Your task to perform on an android device: open the mobile data screen to see how much data has been used Image 0: 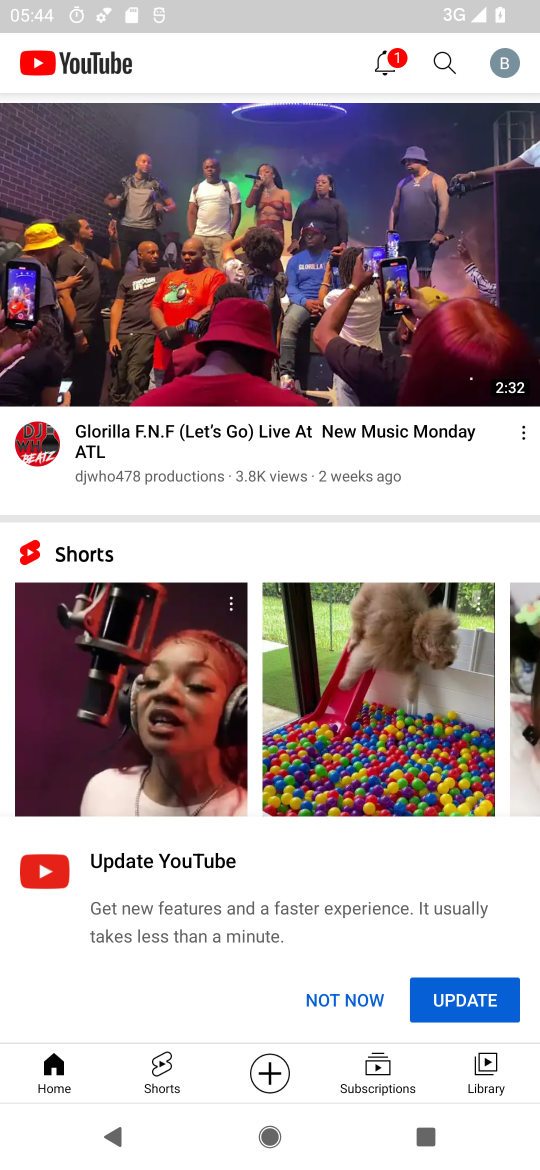
Step 0: press home button
Your task to perform on an android device: open the mobile data screen to see how much data has been used Image 1: 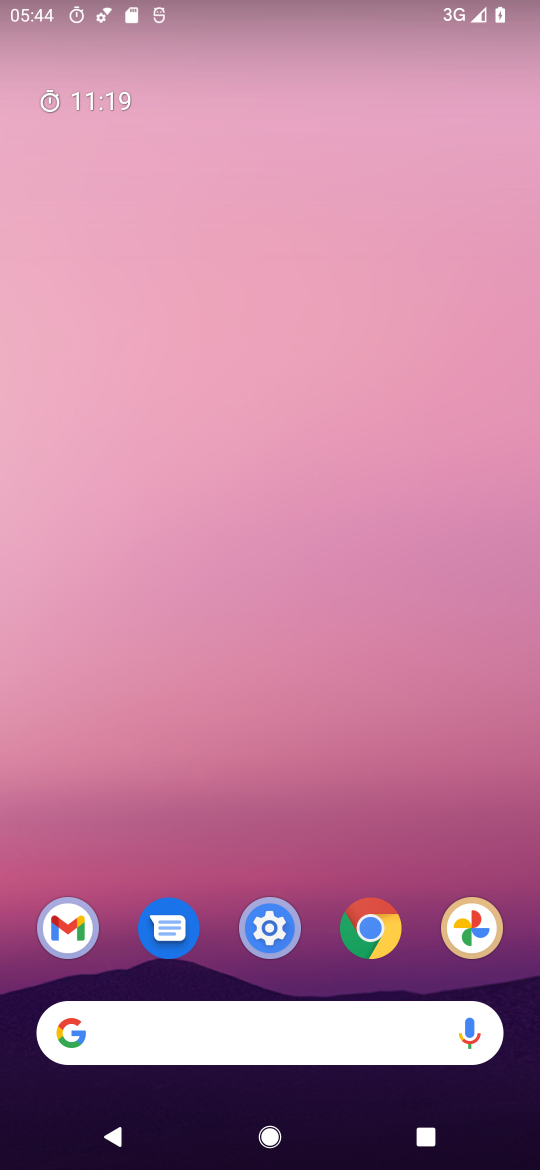
Step 1: click (279, 916)
Your task to perform on an android device: open the mobile data screen to see how much data has been used Image 2: 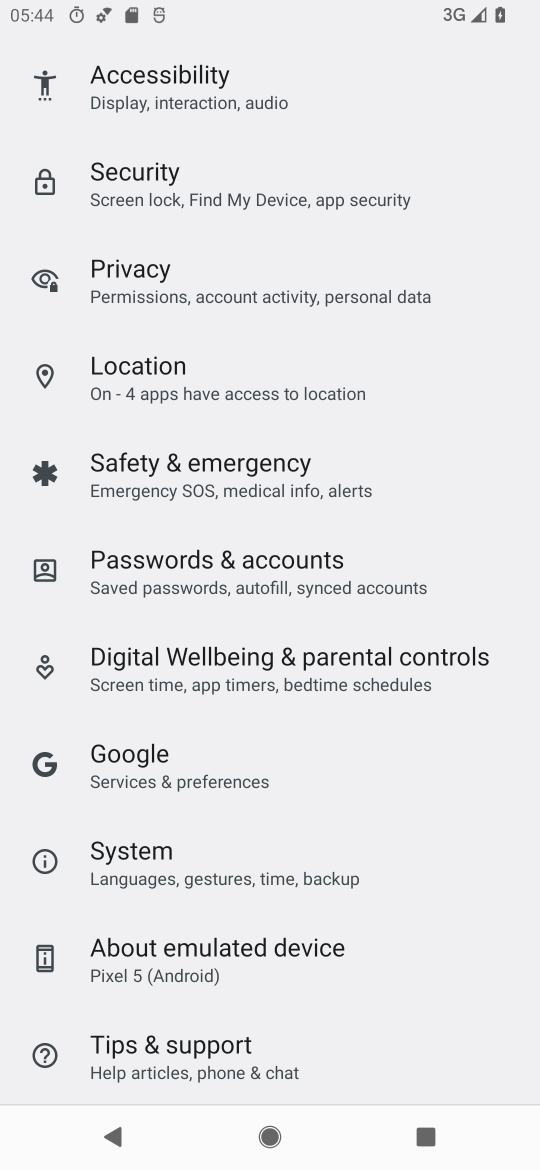
Step 2: drag from (256, 122) to (264, 1055)
Your task to perform on an android device: open the mobile data screen to see how much data has been used Image 3: 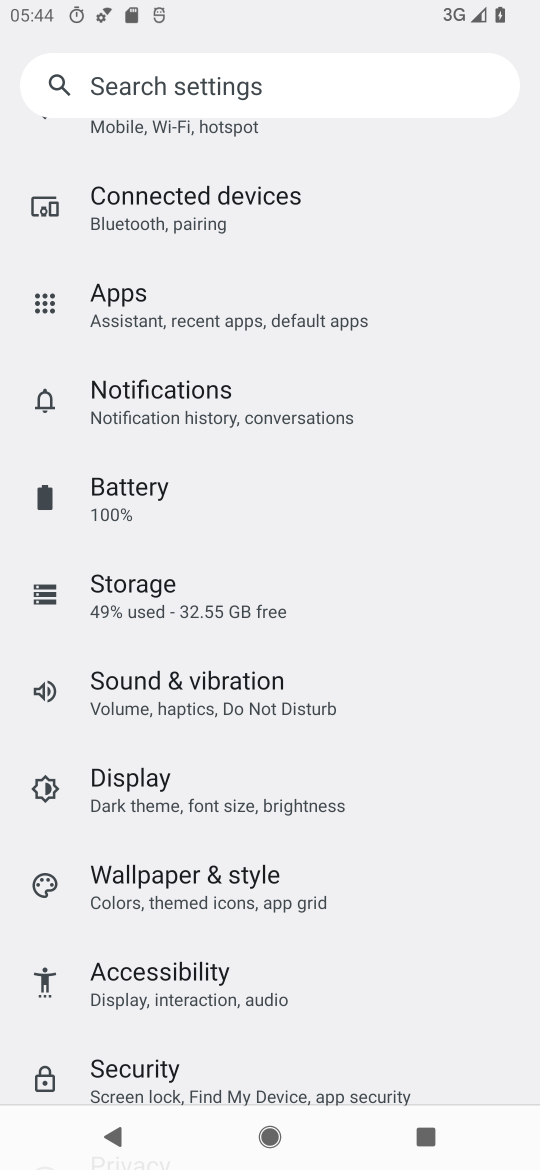
Step 3: drag from (284, 298) to (292, 794)
Your task to perform on an android device: open the mobile data screen to see how much data has been used Image 4: 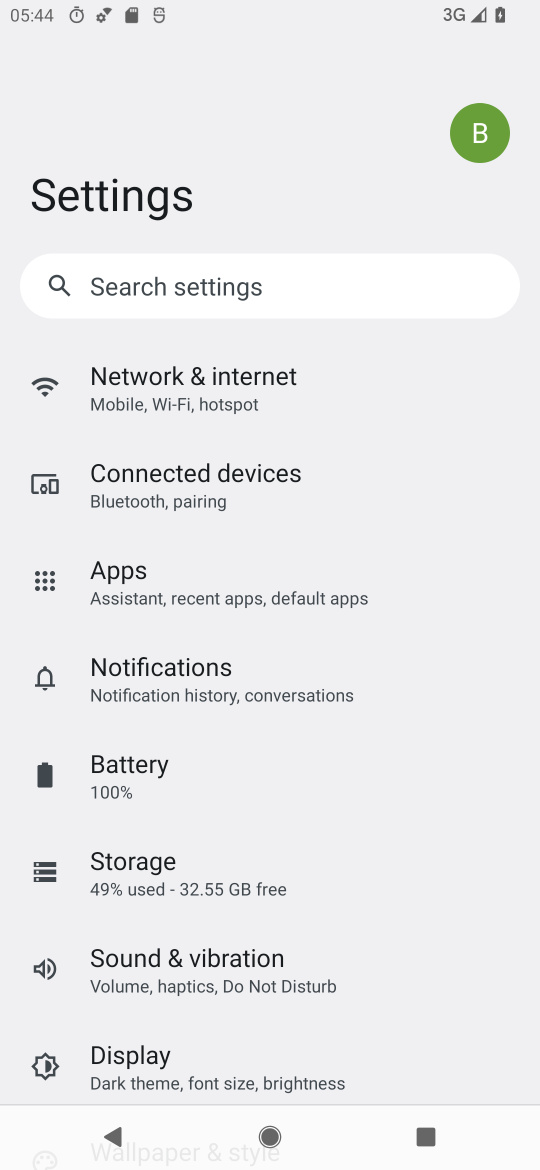
Step 4: click (184, 400)
Your task to perform on an android device: open the mobile data screen to see how much data has been used Image 5: 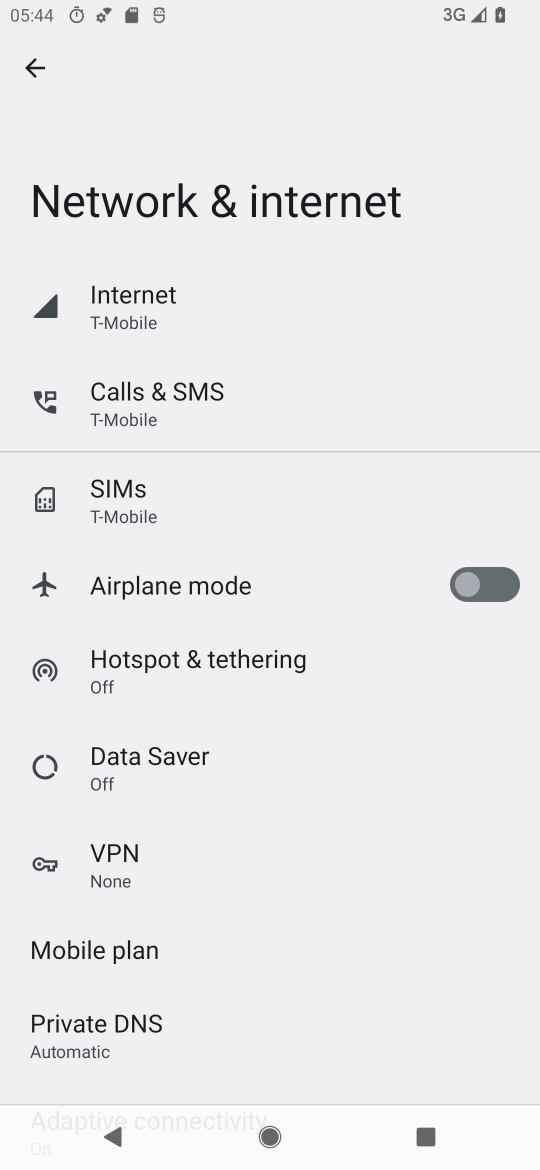
Step 5: click (154, 319)
Your task to perform on an android device: open the mobile data screen to see how much data has been used Image 6: 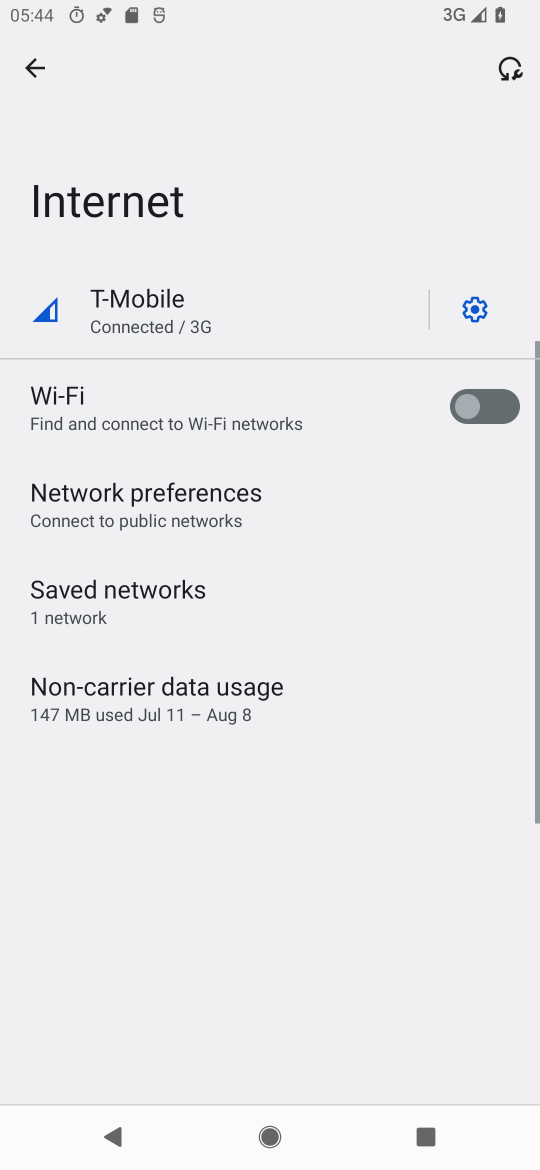
Step 6: click (479, 303)
Your task to perform on an android device: open the mobile data screen to see how much data has been used Image 7: 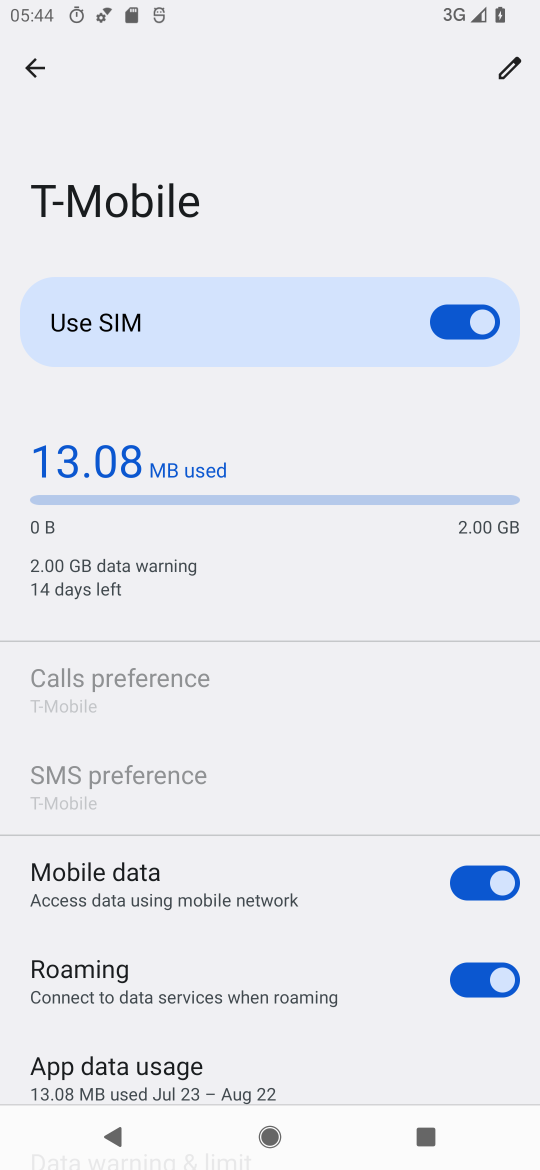
Step 7: drag from (281, 956) to (288, 648)
Your task to perform on an android device: open the mobile data screen to see how much data has been used Image 8: 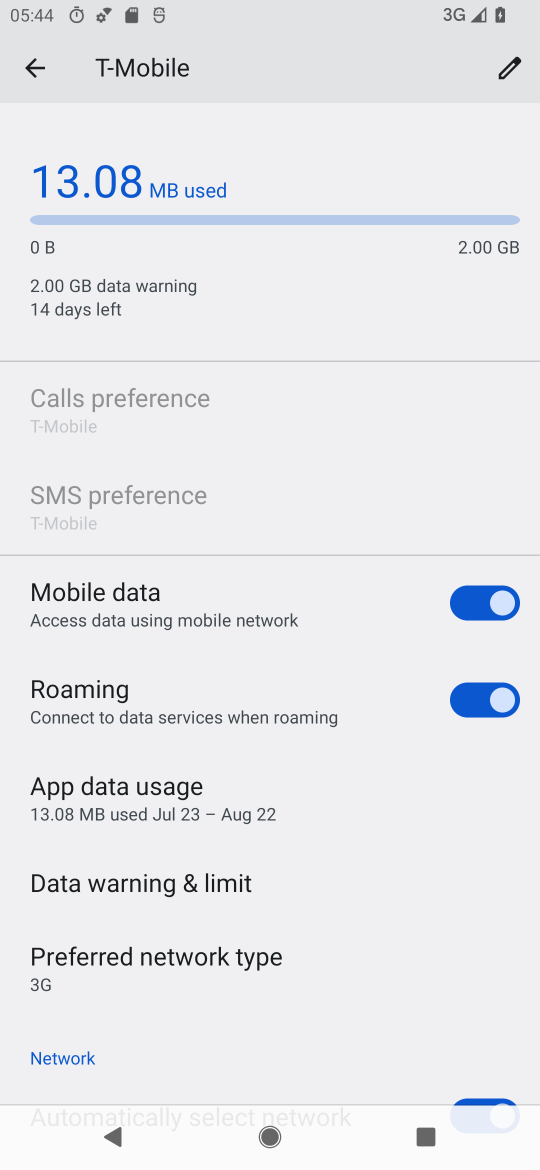
Step 8: click (159, 798)
Your task to perform on an android device: open the mobile data screen to see how much data has been used Image 9: 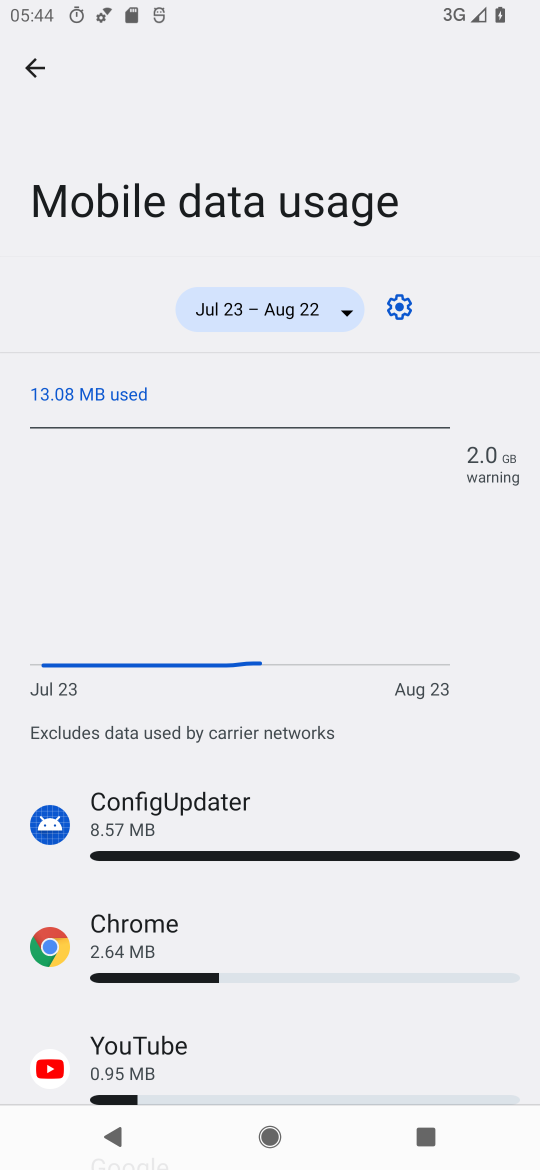
Step 9: task complete